Your task to perform on an android device: delete a single message in the gmail app Image 0: 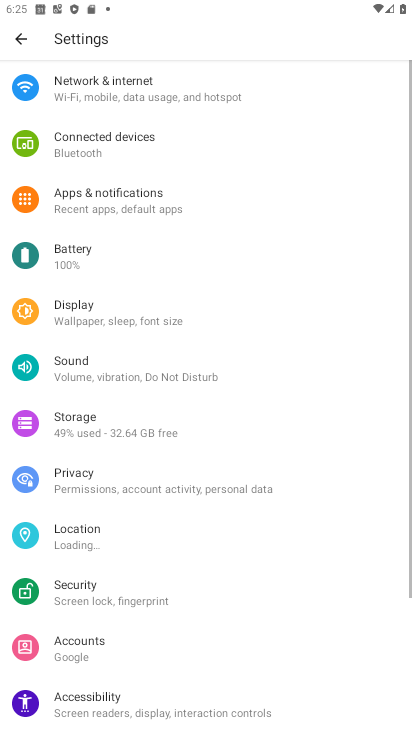
Step 0: press home button
Your task to perform on an android device: delete a single message in the gmail app Image 1: 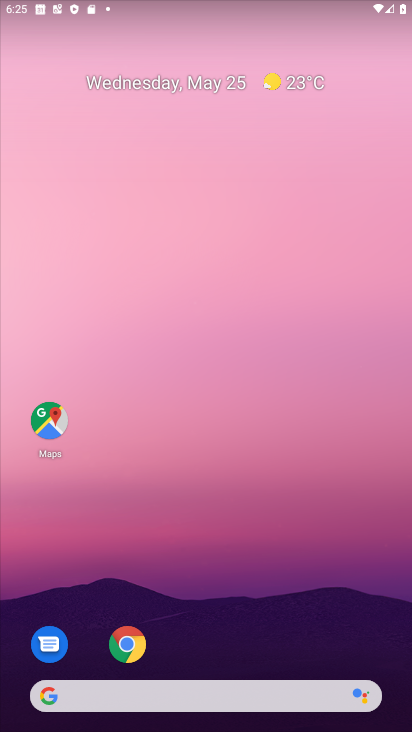
Step 1: drag from (337, 441) to (266, 75)
Your task to perform on an android device: delete a single message in the gmail app Image 2: 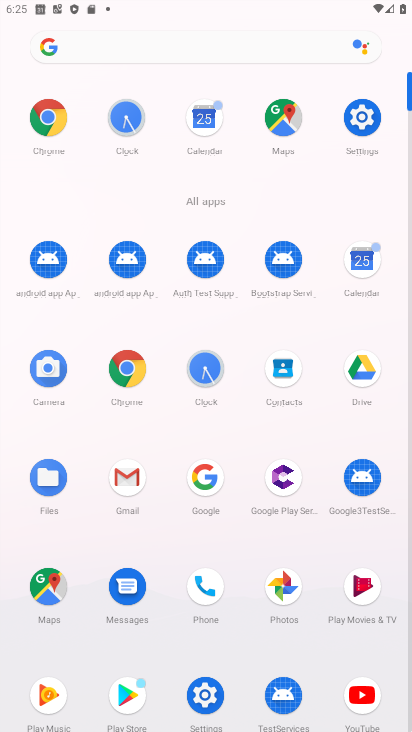
Step 2: click (124, 488)
Your task to perform on an android device: delete a single message in the gmail app Image 3: 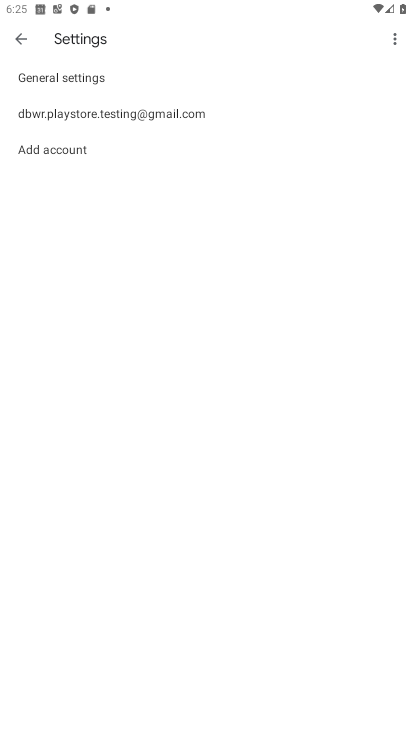
Step 3: press back button
Your task to perform on an android device: delete a single message in the gmail app Image 4: 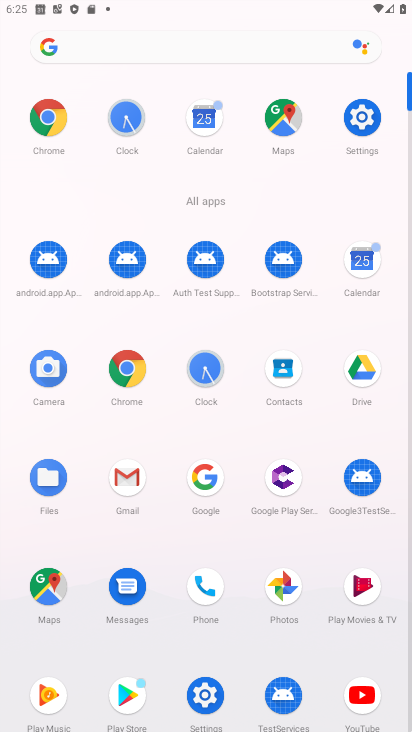
Step 4: click (114, 479)
Your task to perform on an android device: delete a single message in the gmail app Image 5: 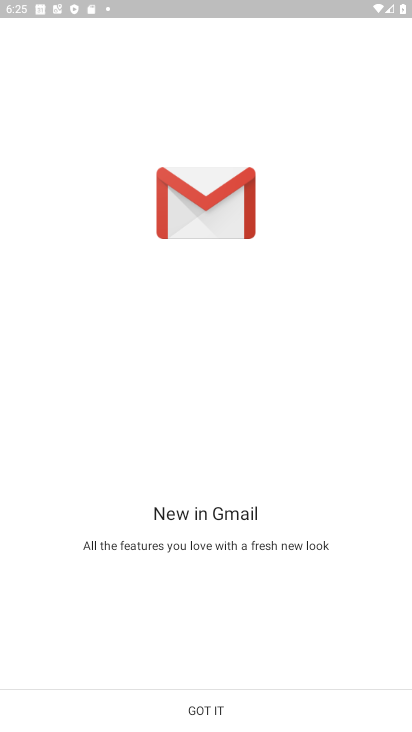
Step 5: click (181, 716)
Your task to perform on an android device: delete a single message in the gmail app Image 6: 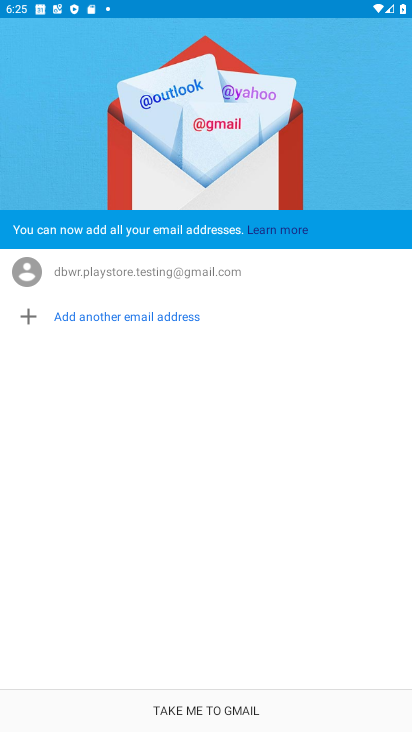
Step 6: click (181, 716)
Your task to perform on an android device: delete a single message in the gmail app Image 7: 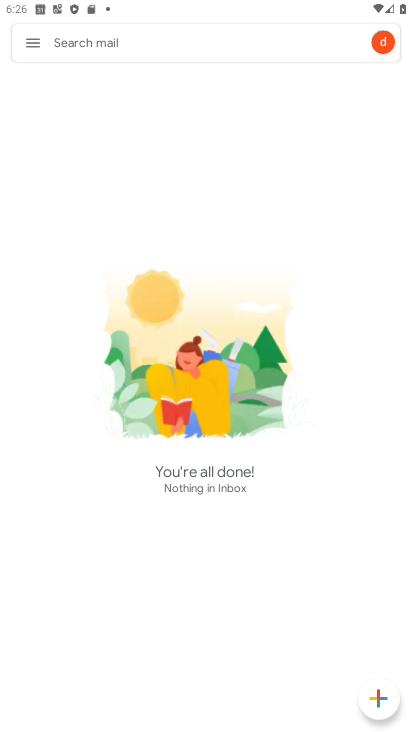
Step 7: task complete